Your task to perform on an android device: stop showing notifications on the lock screen Image 0: 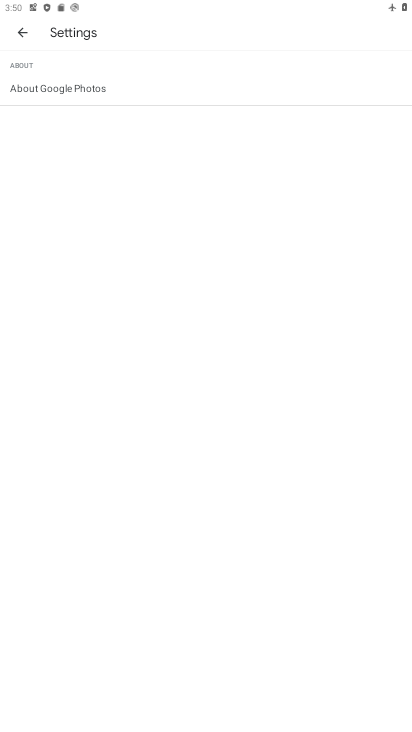
Step 0: press home button
Your task to perform on an android device: stop showing notifications on the lock screen Image 1: 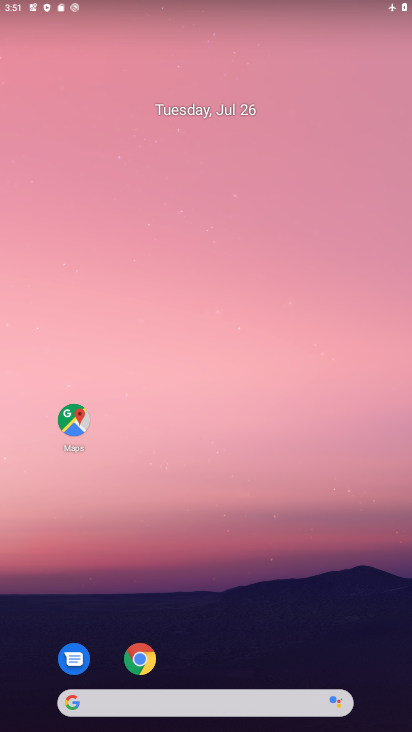
Step 1: drag from (176, 538) to (126, 4)
Your task to perform on an android device: stop showing notifications on the lock screen Image 2: 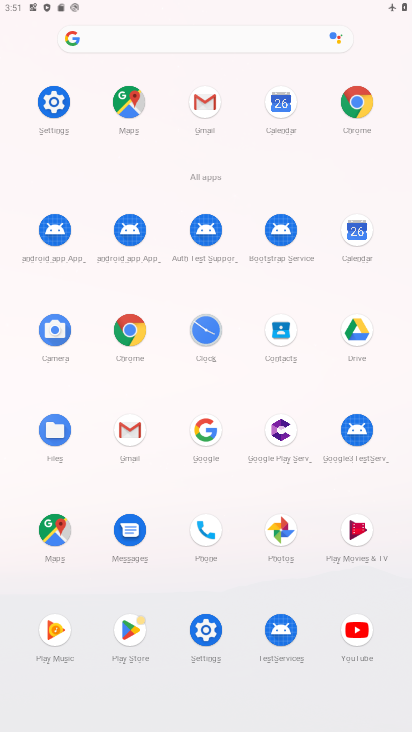
Step 2: click (61, 99)
Your task to perform on an android device: stop showing notifications on the lock screen Image 3: 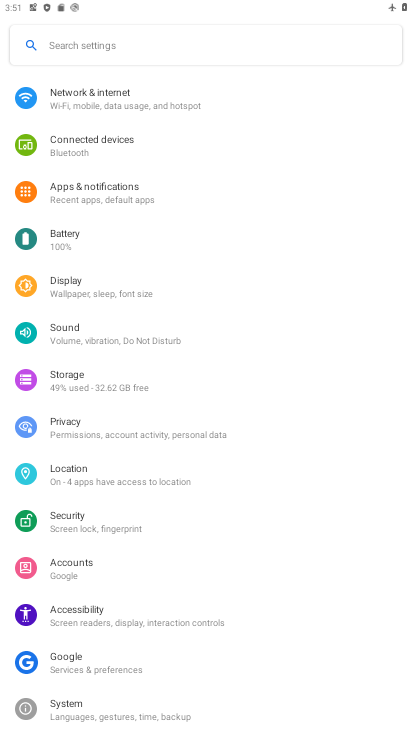
Step 3: click (117, 193)
Your task to perform on an android device: stop showing notifications on the lock screen Image 4: 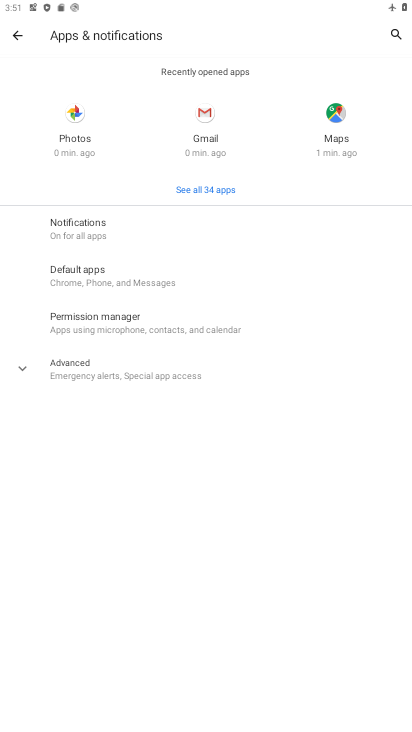
Step 4: click (104, 212)
Your task to perform on an android device: stop showing notifications on the lock screen Image 5: 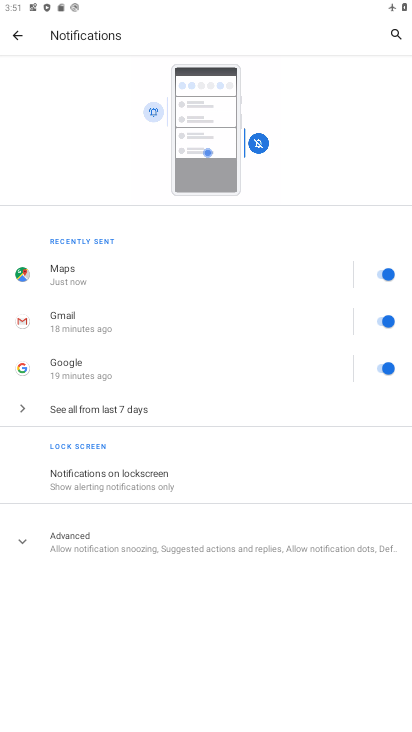
Step 5: click (126, 476)
Your task to perform on an android device: stop showing notifications on the lock screen Image 6: 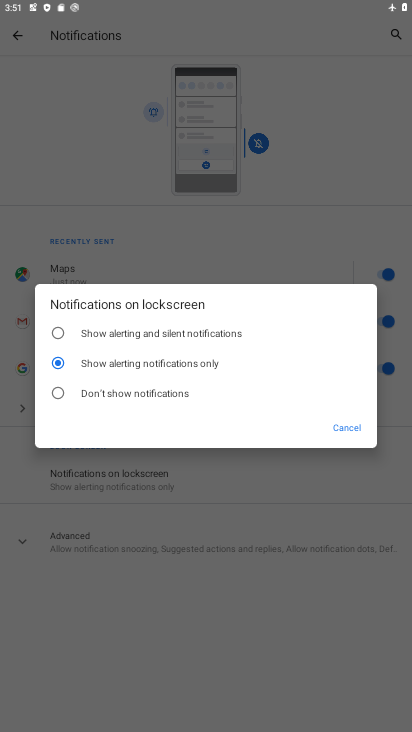
Step 6: click (165, 394)
Your task to perform on an android device: stop showing notifications on the lock screen Image 7: 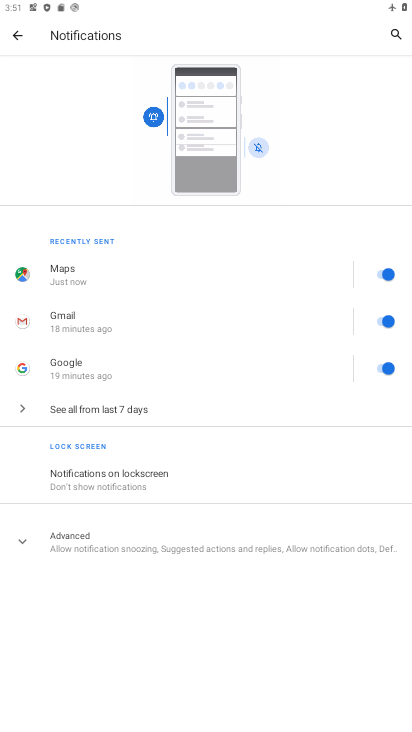
Step 7: task complete